Your task to perform on an android device: Open CNN.com Image 0: 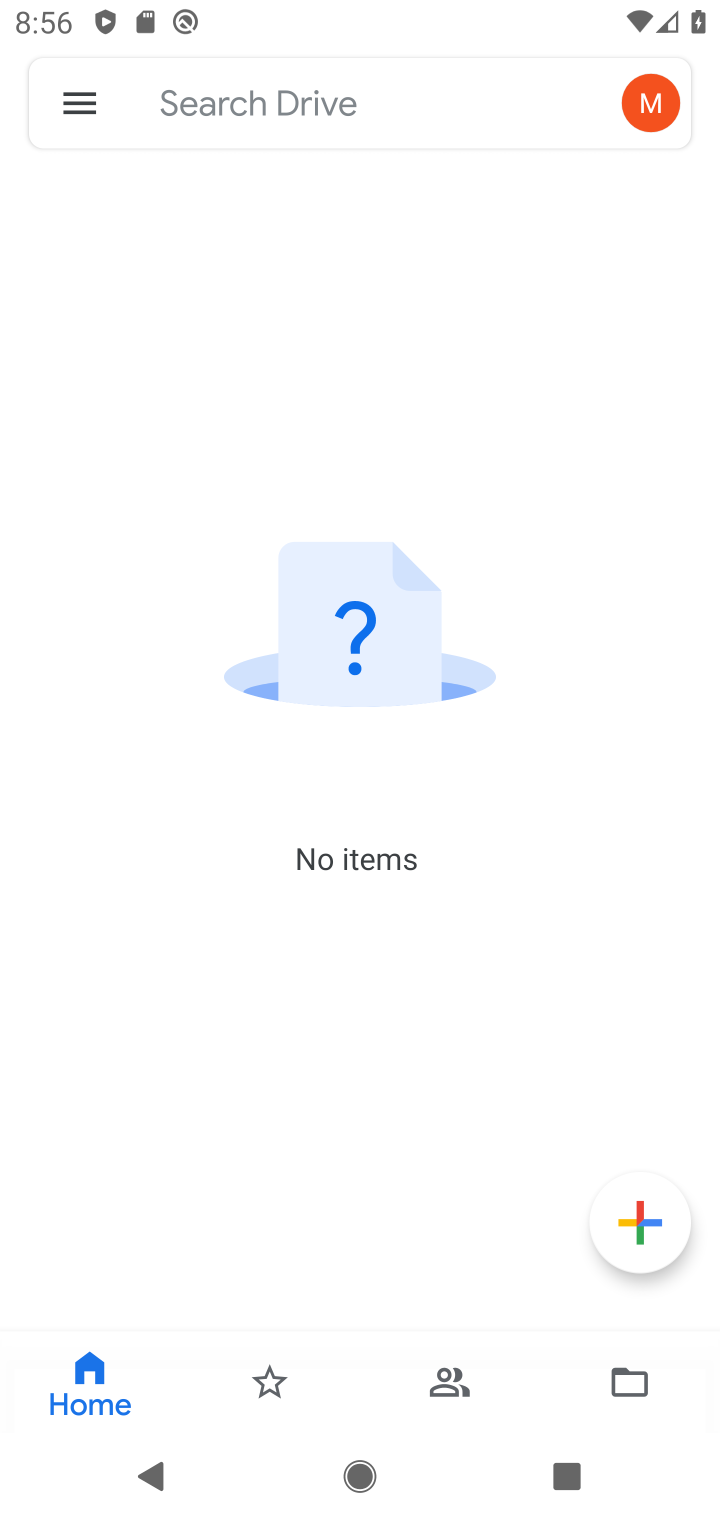
Step 0: press home button
Your task to perform on an android device: Open CNN.com Image 1: 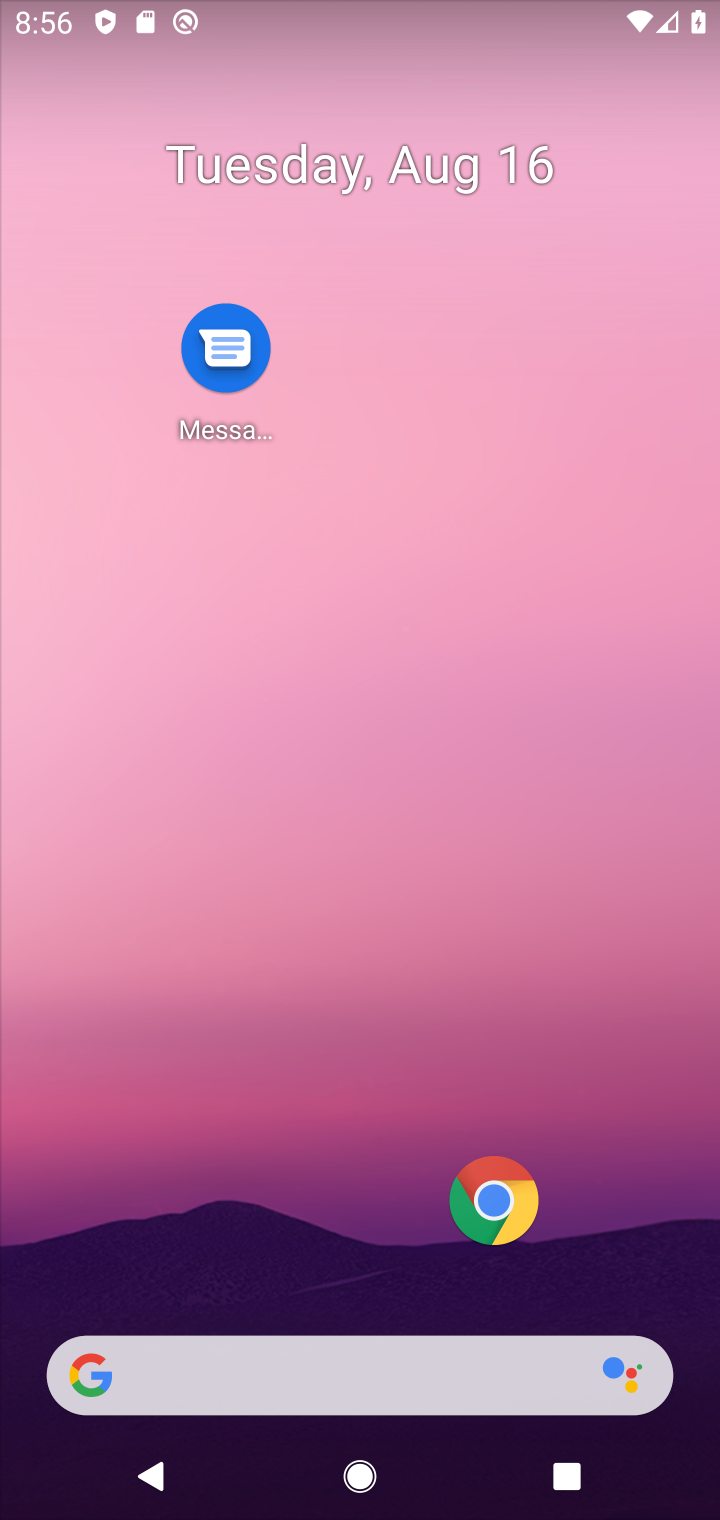
Step 1: click (482, 1196)
Your task to perform on an android device: Open CNN.com Image 2: 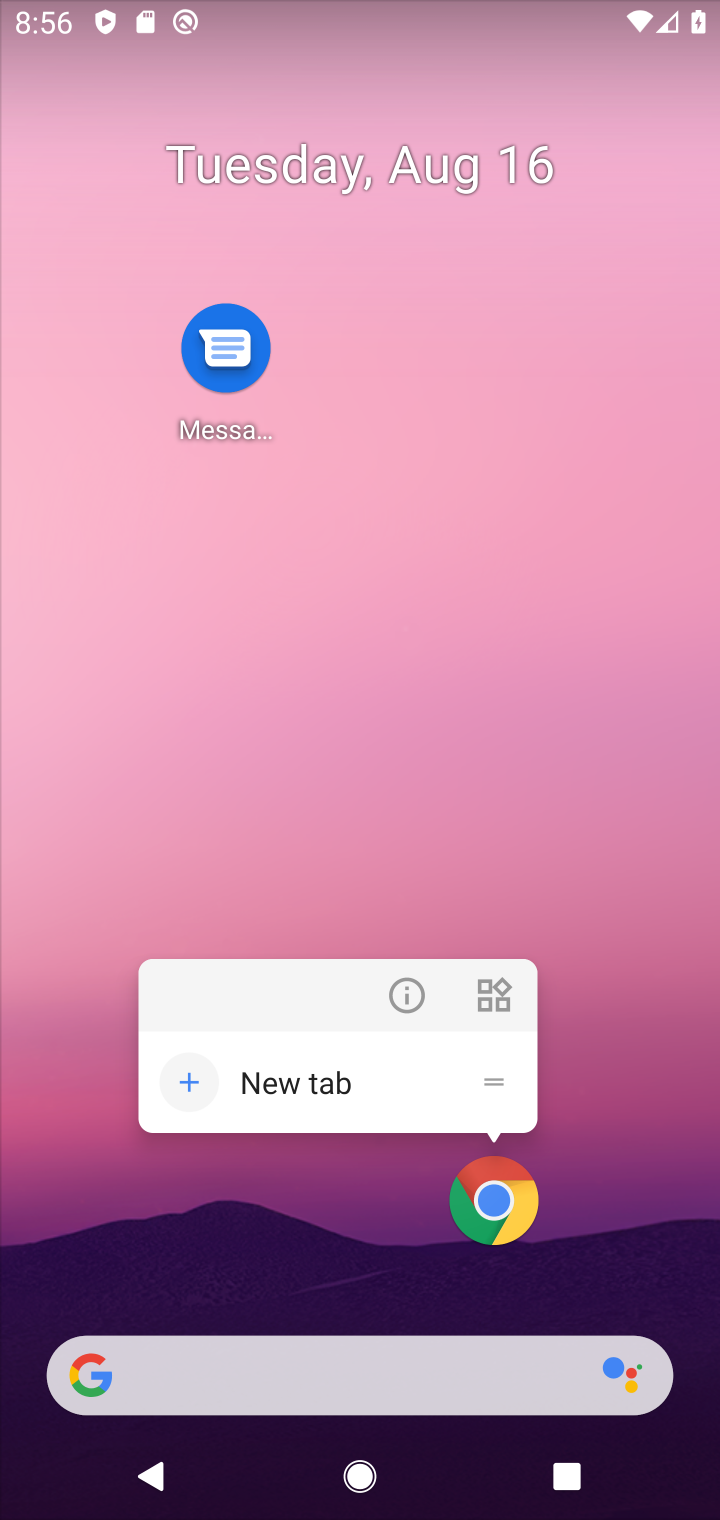
Step 2: click (482, 1196)
Your task to perform on an android device: Open CNN.com Image 3: 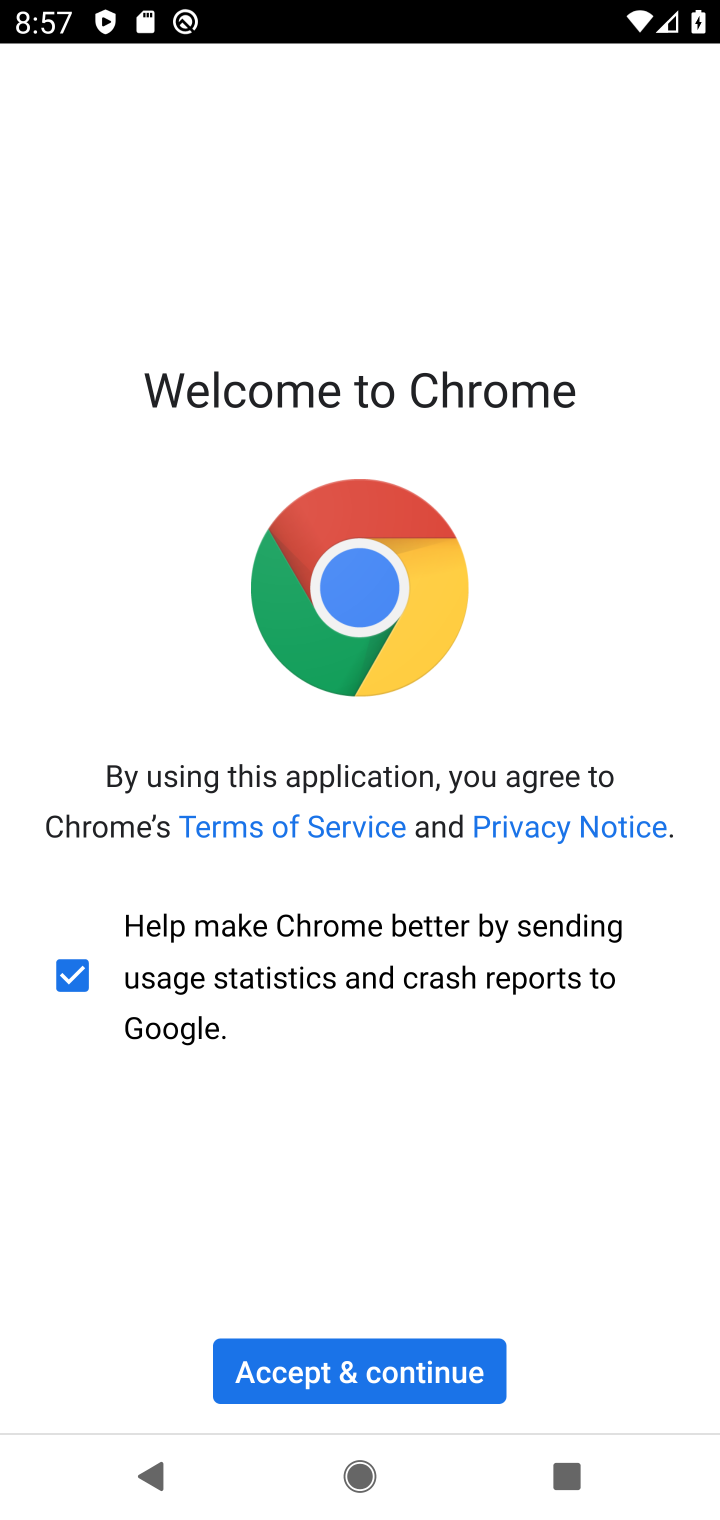
Step 3: click (262, 1357)
Your task to perform on an android device: Open CNN.com Image 4: 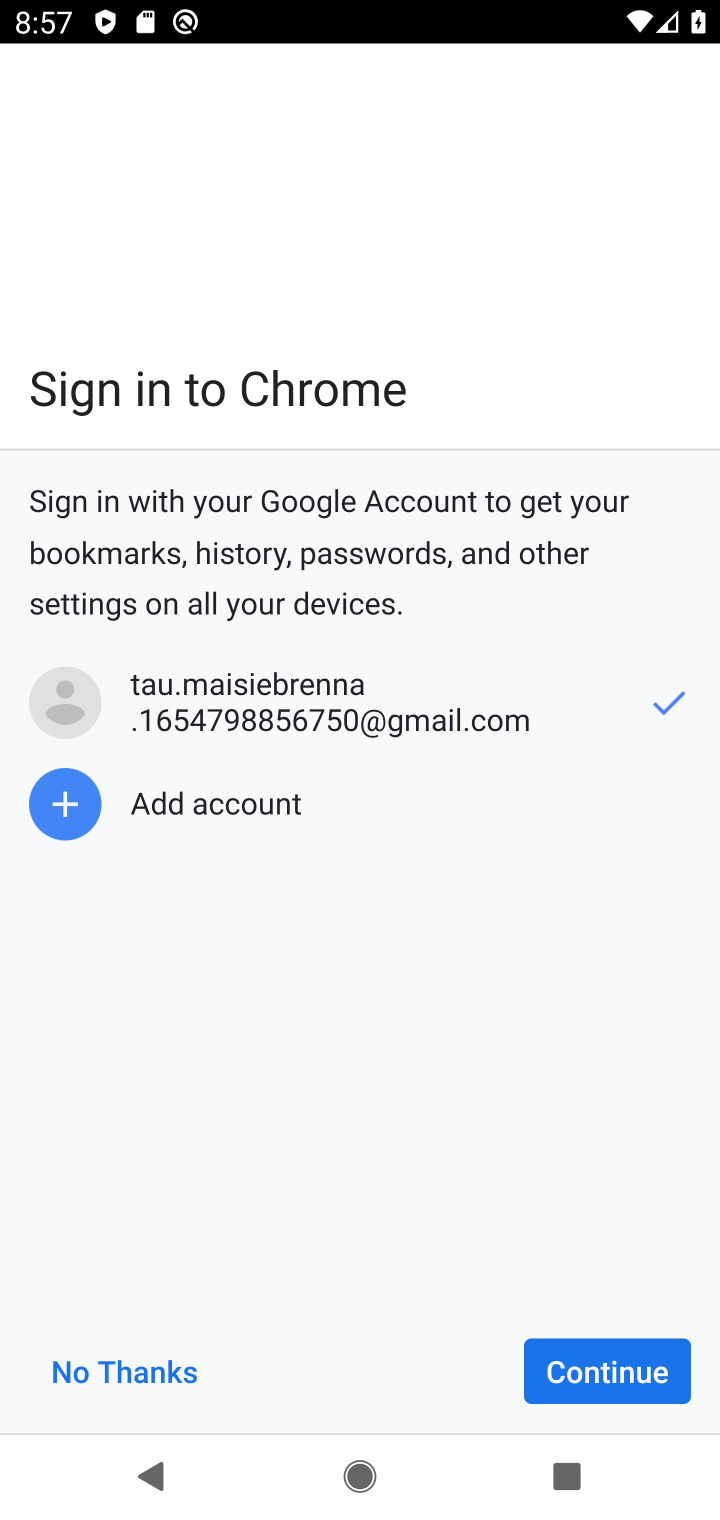
Step 4: click (578, 1372)
Your task to perform on an android device: Open CNN.com Image 5: 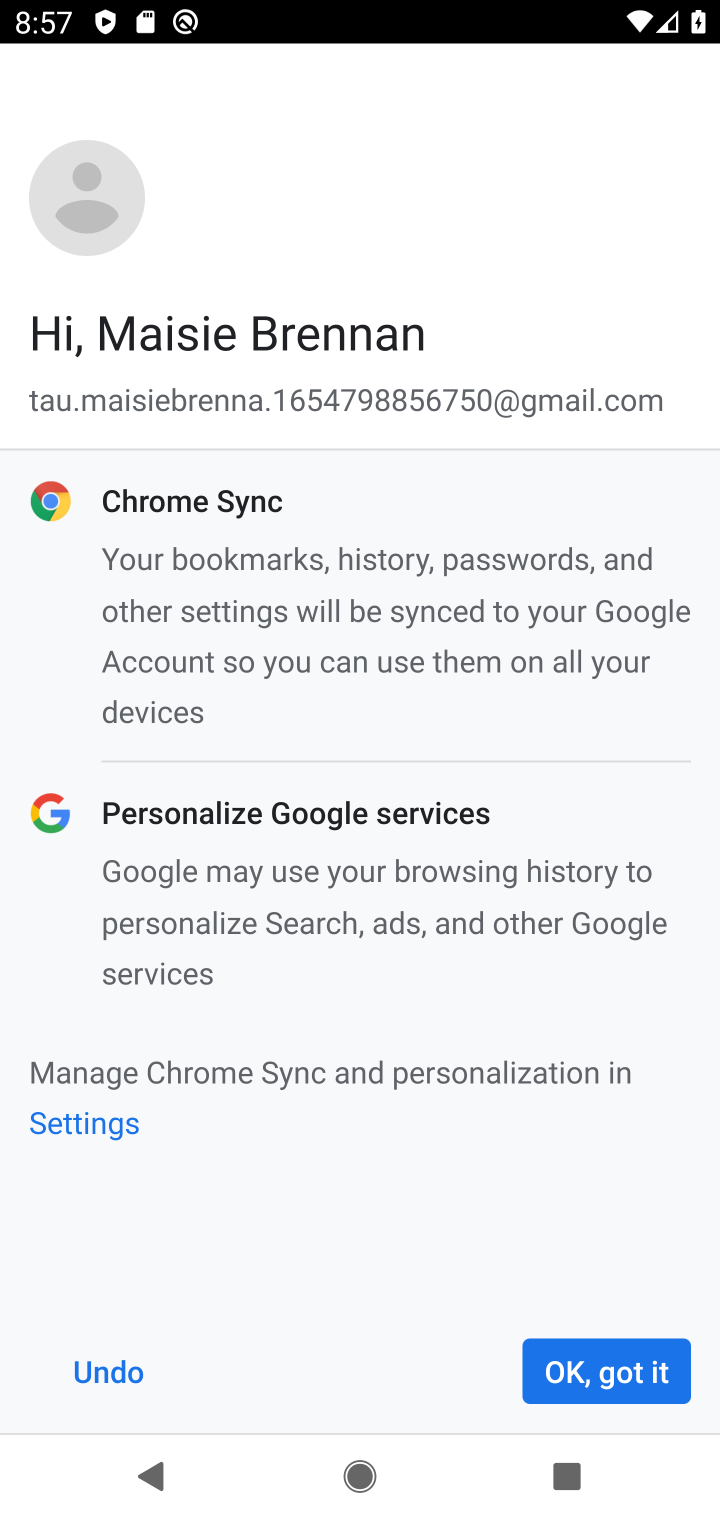
Step 5: click (578, 1372)
Your task to perform on an android device: Open CNN.com Image 6: 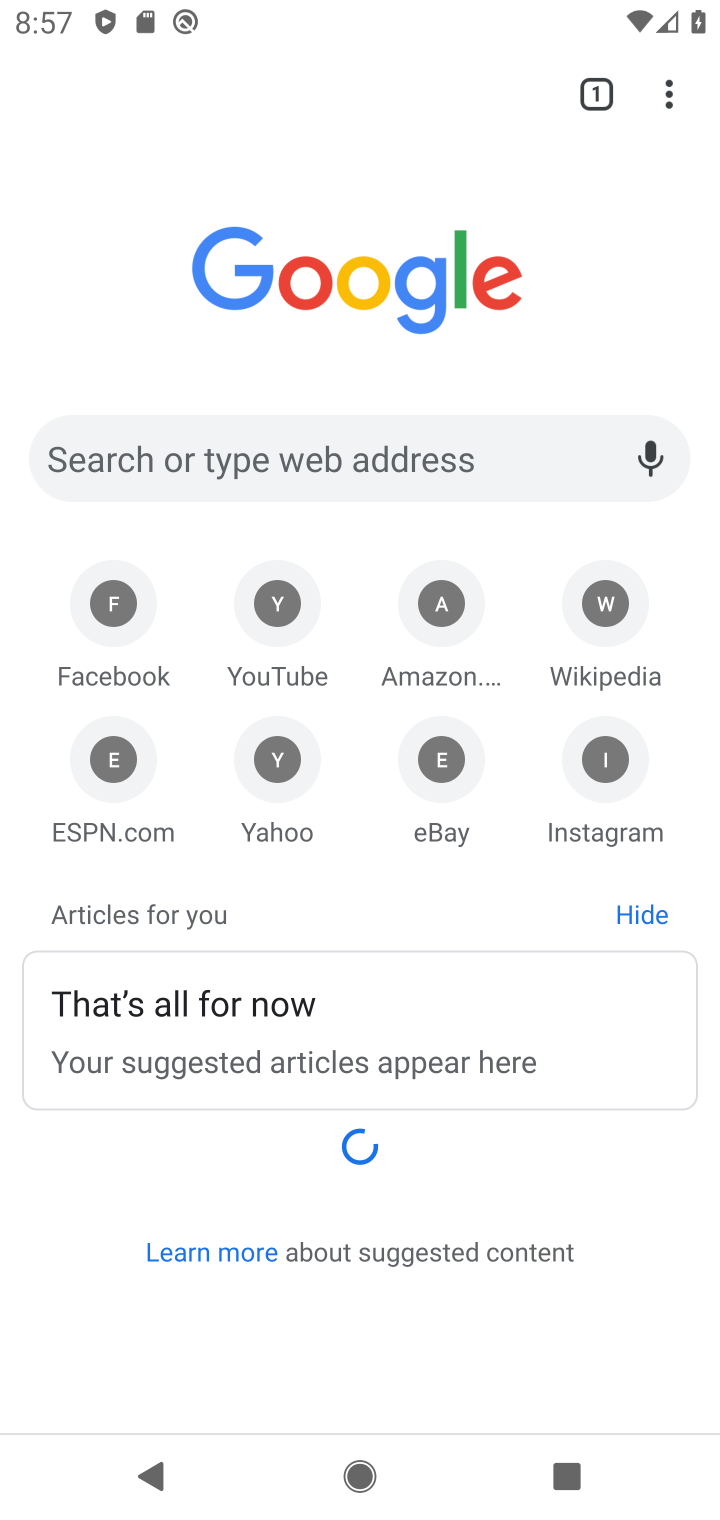
Step 6: click (247, 457)
Your task to perform on an android device: Open CNN.com Image 7: 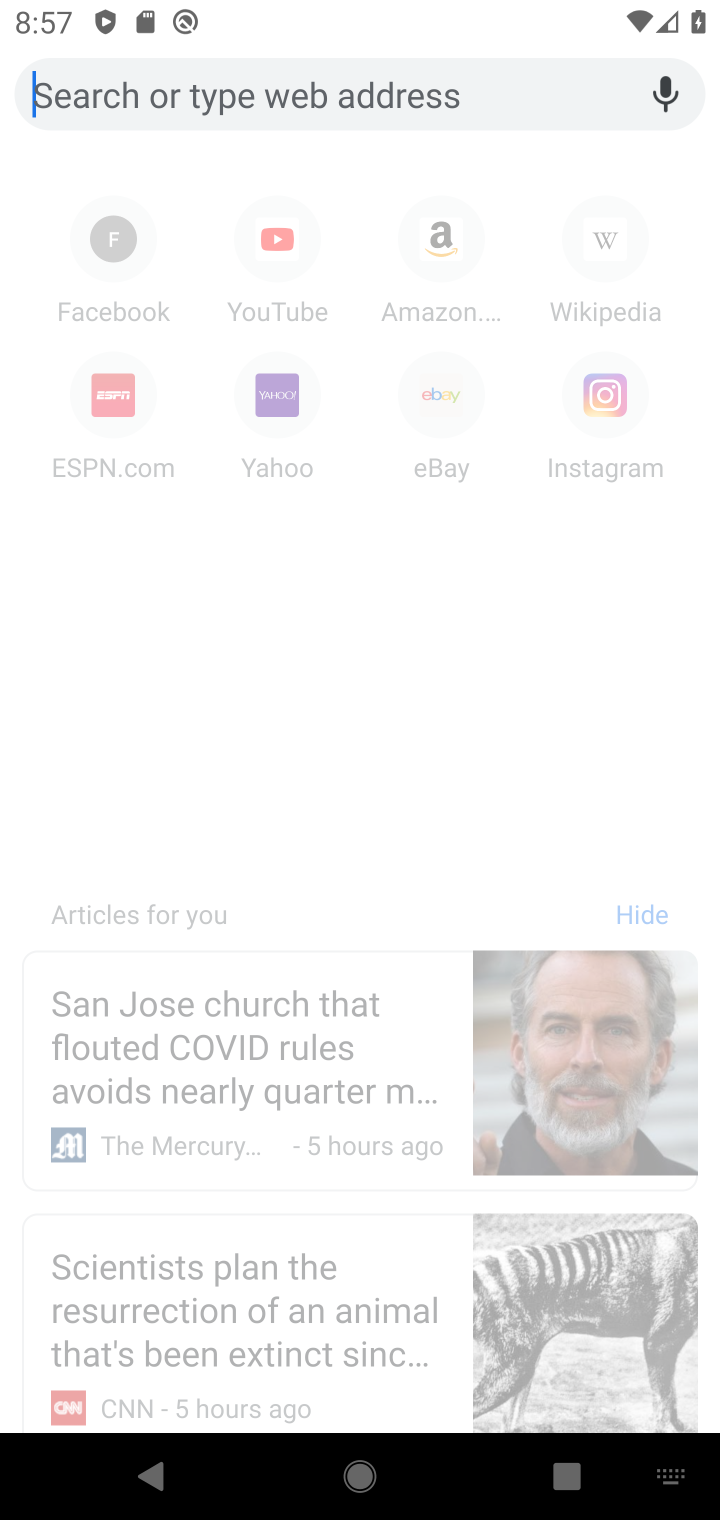
Step 7: type "www.cnn.com"
Your task to perform on an android device: Open CNN.com Image 8: 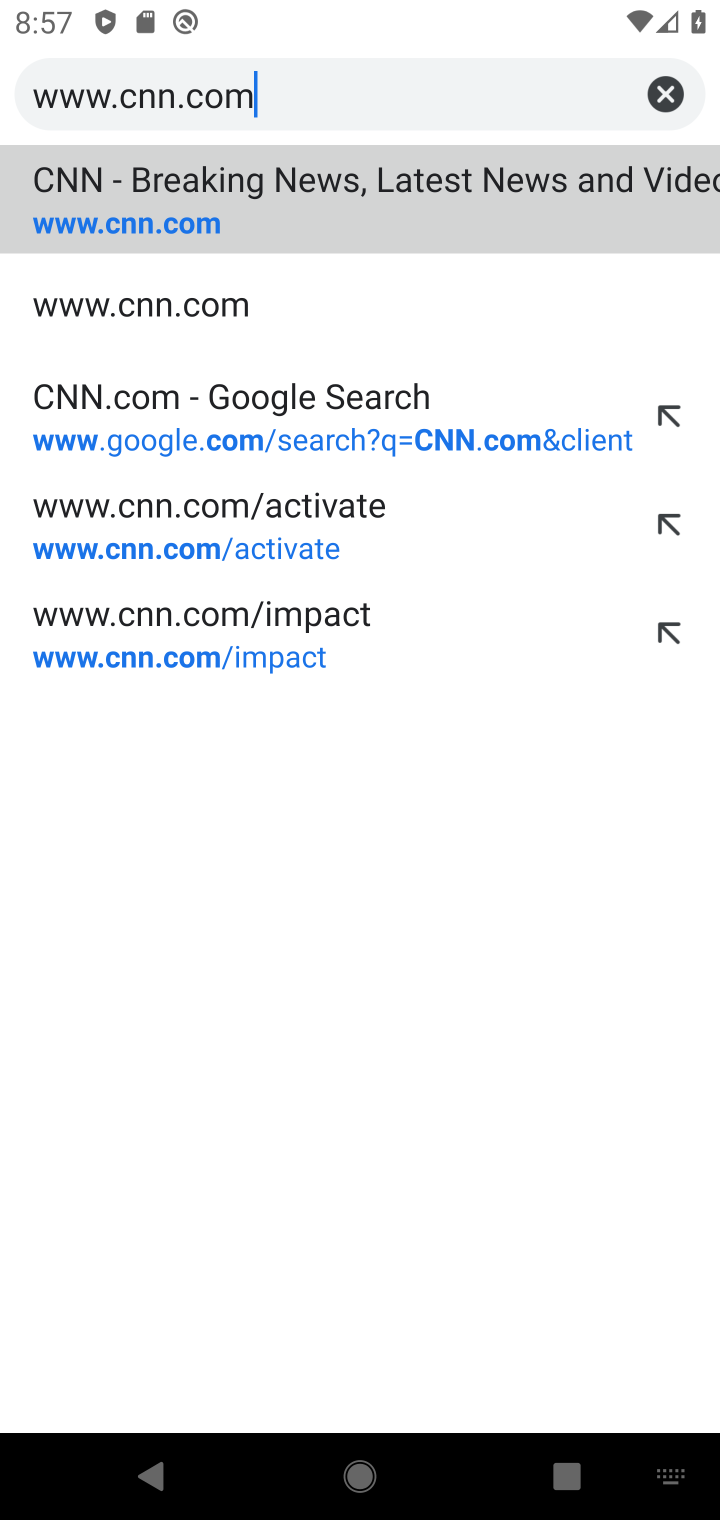
Step 8: click (149, 207)
Your task to perform on an android device: Open CNN.com Image 9: 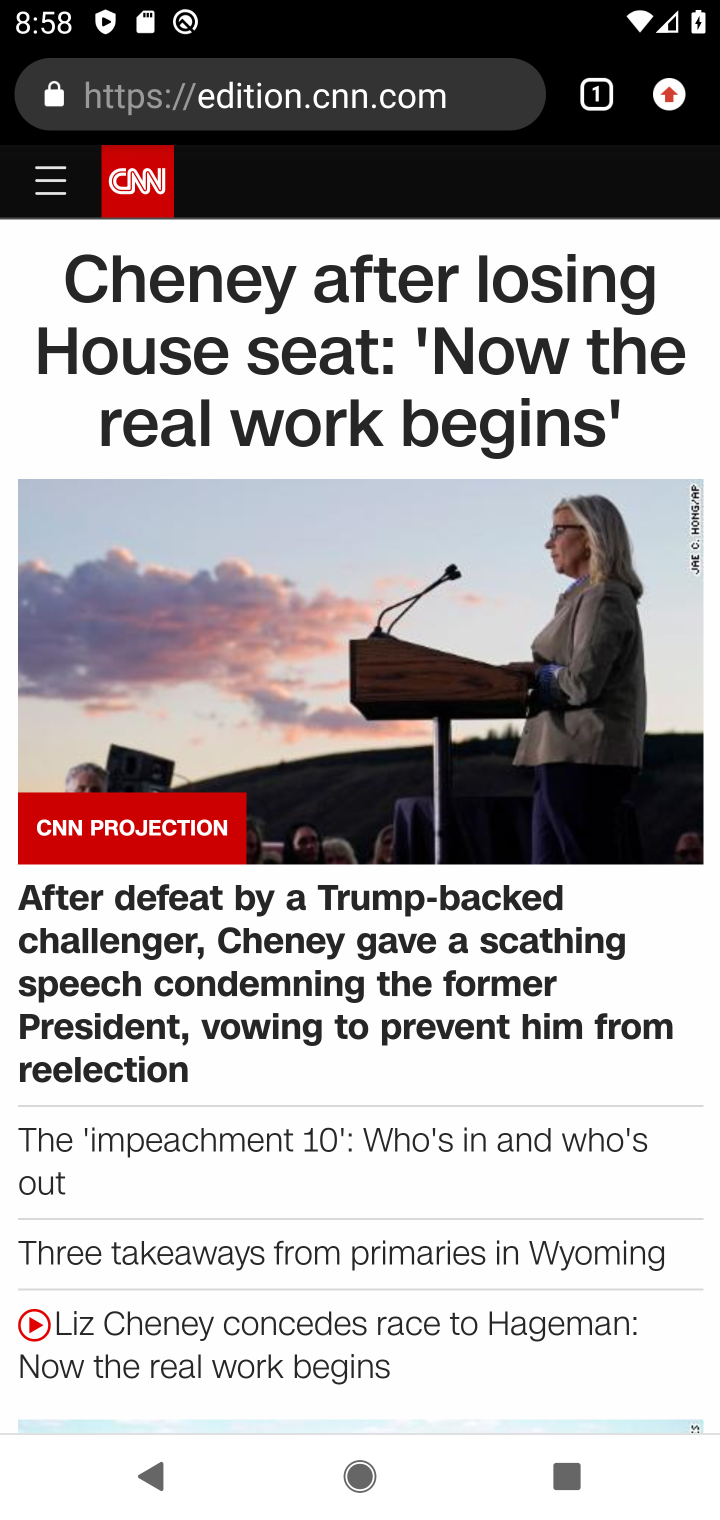
Step 9: task complete